Your task to perform on an android device: Open the phone app and click the voicemail tab. Image 0: 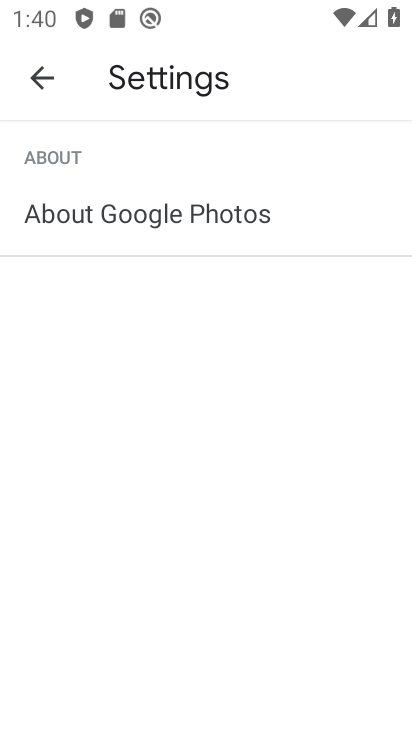
Step 0: press home button
Your task to perform on an android device: Open the phone app and click the voicemail tab. Image 1: 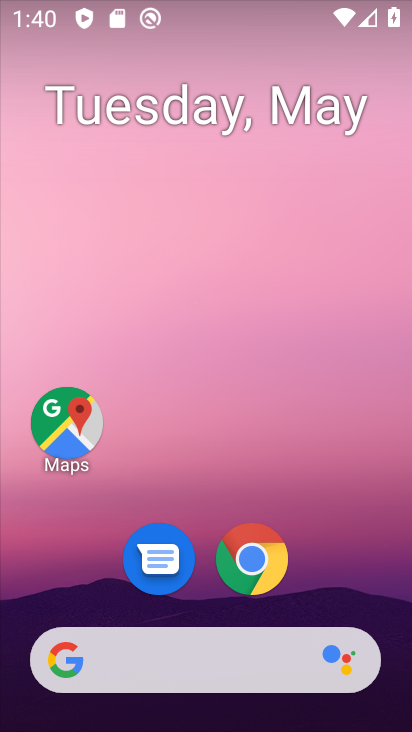
Step 1: drag from (394, 629) to (263, 127)
Your task to perform on an android device: Open the phone app and click the voicemail tab. Image 2: 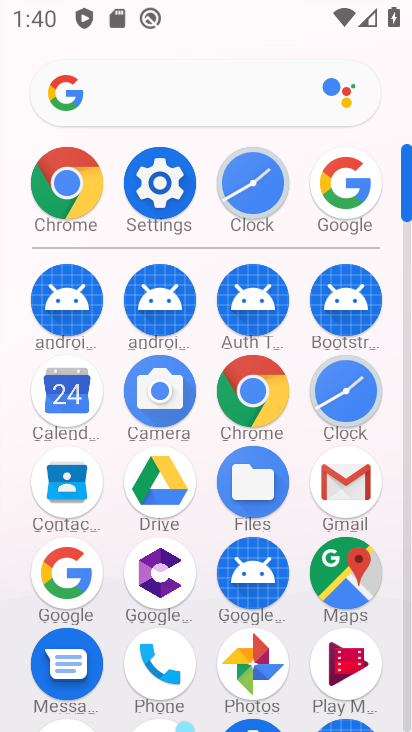
Step 2: click (147, 665)
Your task to perform on an android device: Open the phone app and click the voicemail tab. Image 3: 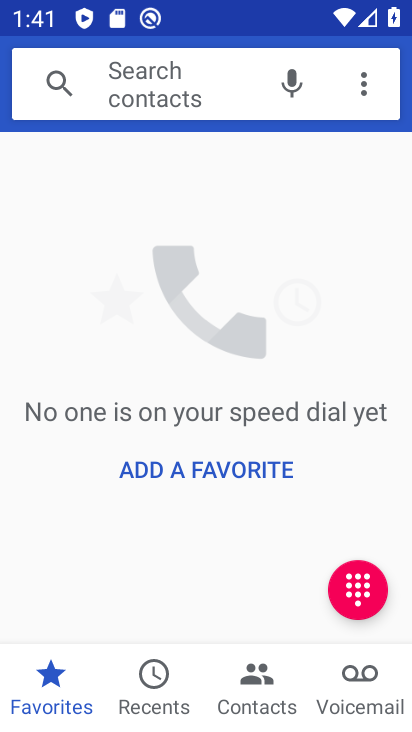
Step 3: click (364, 676)
Your task to perform on an android device: Open the phone app and click the voicemail tab. Image 4: 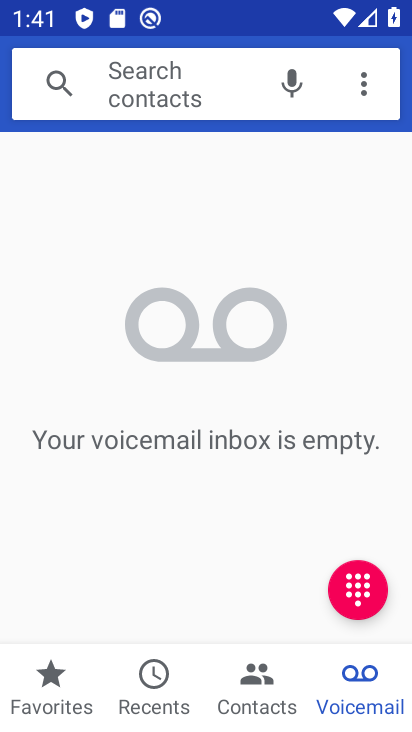
Step 4: task complete